Your task to perform on an android device: Open Maps and search for coffee Image 0: 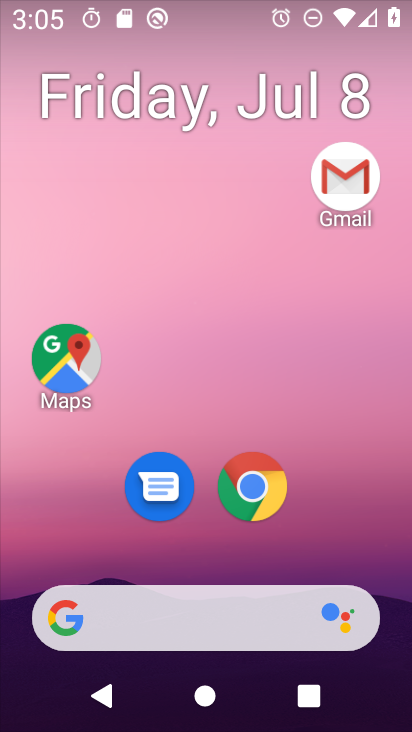
Step 0: drag from (356, 499) to (375, 98)
Your task to perform on an android device: Open Maps and search for coffee Image 1: 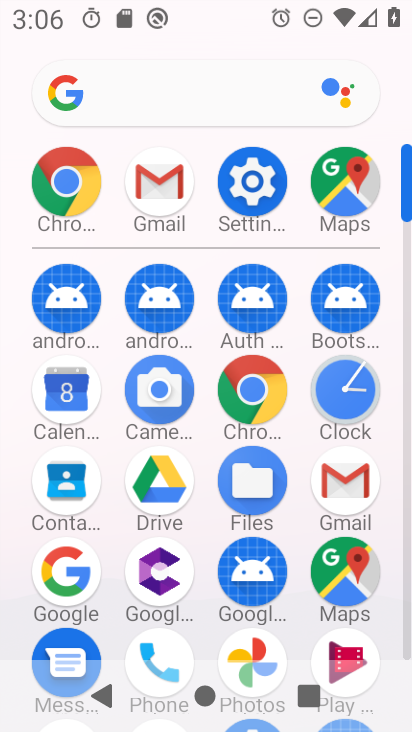
Step 1: click (336, 575)
Your task to perform on an android device: Open Maps and search for coffee Image 2: 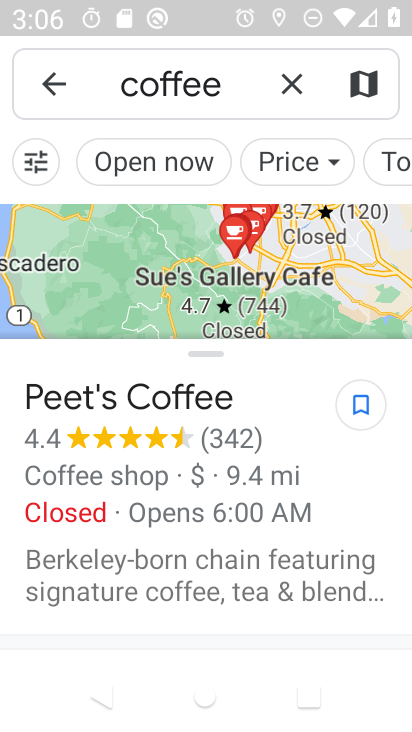
Step 2: task complete